Your task to perform on an android device: Go to notification settings Image 0: 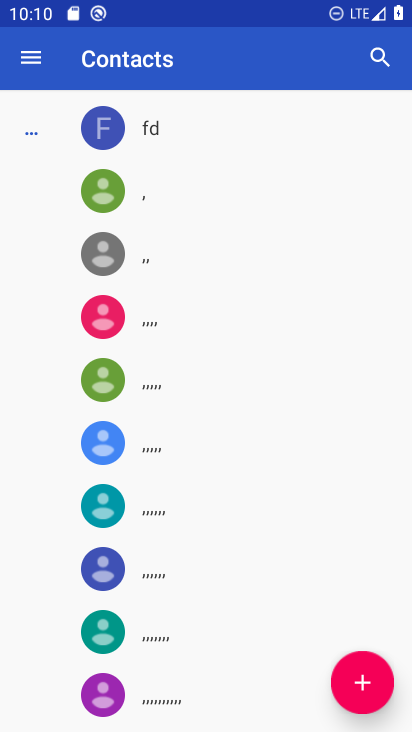
Step 0: press home button
Your task to perform on an android device: Go to notification settings Image 1: 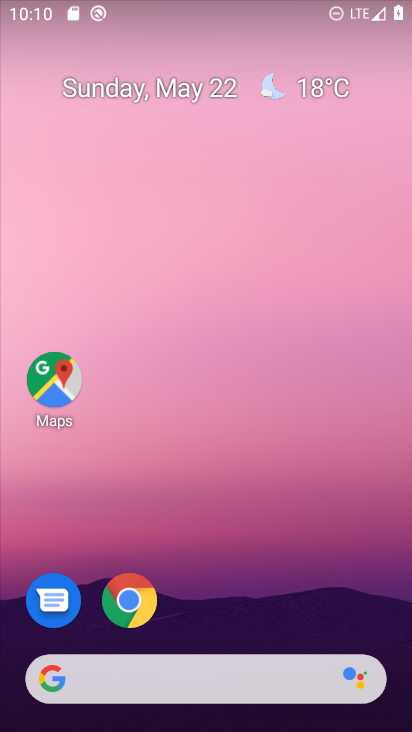
Step 1: drag from (335, 613) to (325, 66)
Your task to perform on an android device: Go to notification settings Image 2: 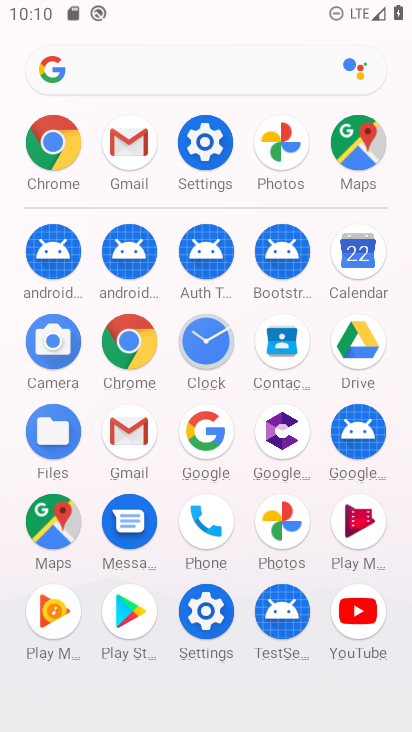
Step 2: click (205, 158)
Your task to perform on an android device: Go to notification settings Image 3: 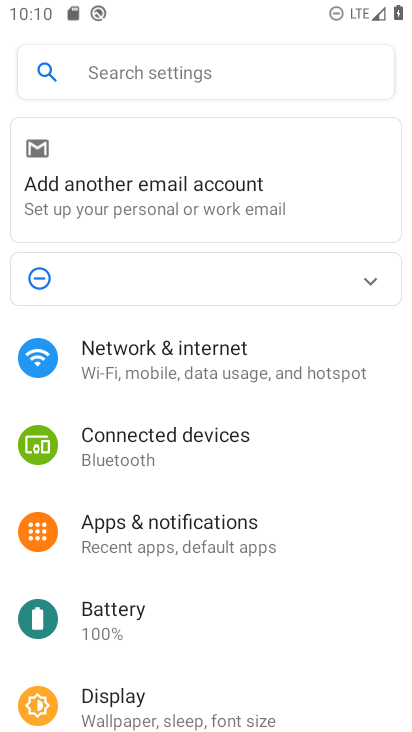
Step 3: click (267, 522)
Your task to perform on an android device: Go to notification settings Image 4: 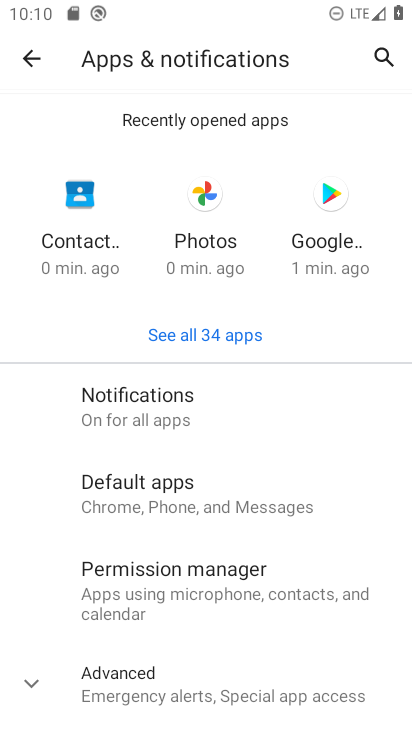
Step 4: click (179, 420)
Your task to perform on an android device: Go to notification settings Image 5: 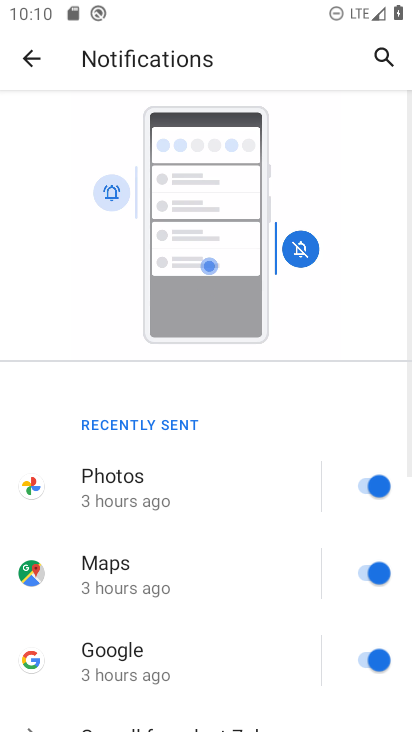
Step 5: task complete